Your task to perform on an android device: Go to battery settings Image 0: 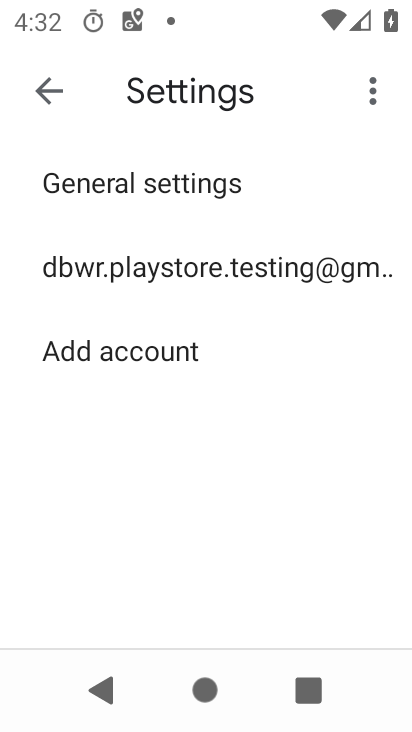
Step 0: press home button
Your task to perform on an android device: Go to battery settings Image 1: 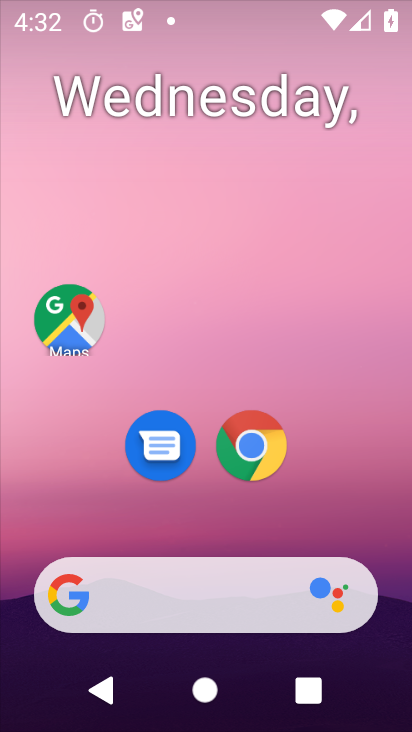
Step 1: drag from (203, 535) to (207, 113)
Your task to perform on an android device: Go to battery settings Image 2: 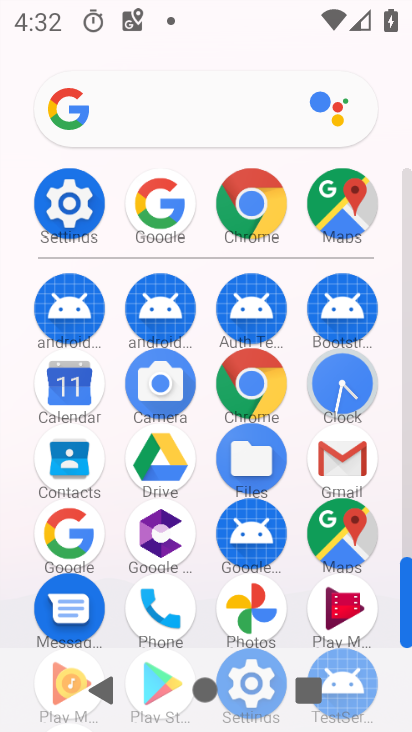
Step 2: click (68, 209)
Your task to perform on an android device: Go to battery settings Image 3: 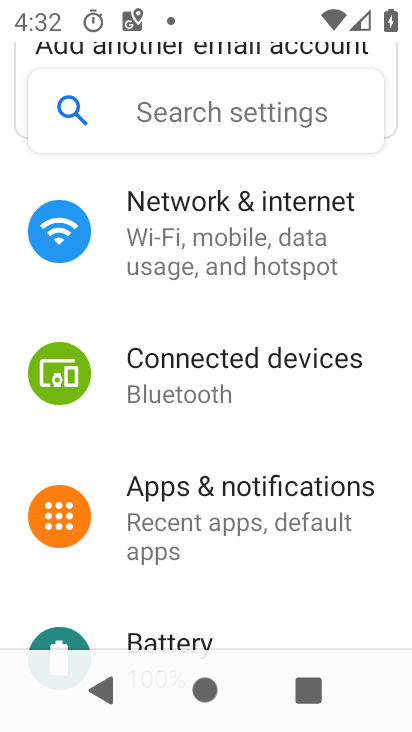
Step 3: click (145, 632)
Your task to perform on an android device: Go to battery settings Image 4: 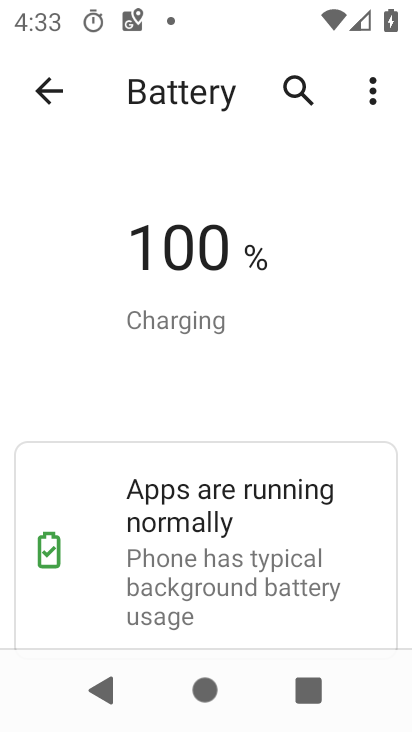
Step 4: task complete